Your task to perform on an android device: stop showing notifications on the lock screen Image 0: 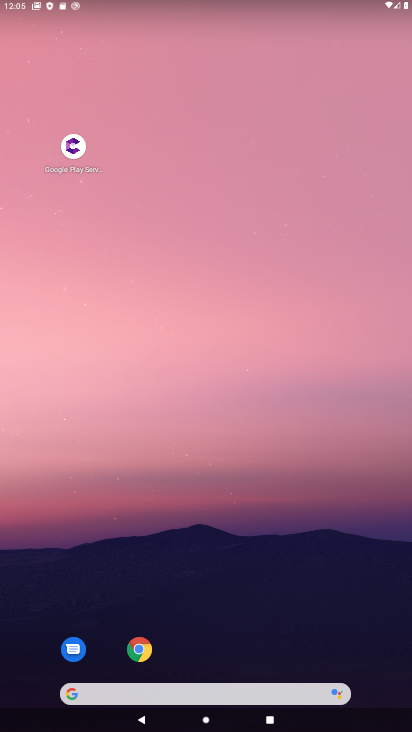
Step 0: drag from (386, 673) to (315, 174)
Your task to perform on an android device: stop showing notifications on the lock screen Image 1: 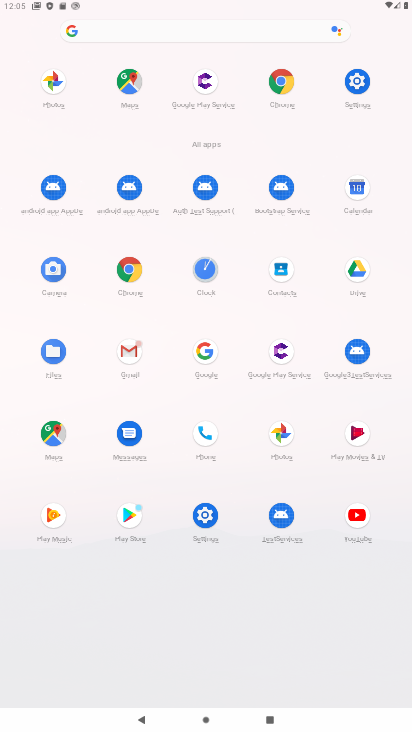
Step 1: click (204, 517)
Your task to perform on an android device: stop showing notifications on the lock screen Image 2: 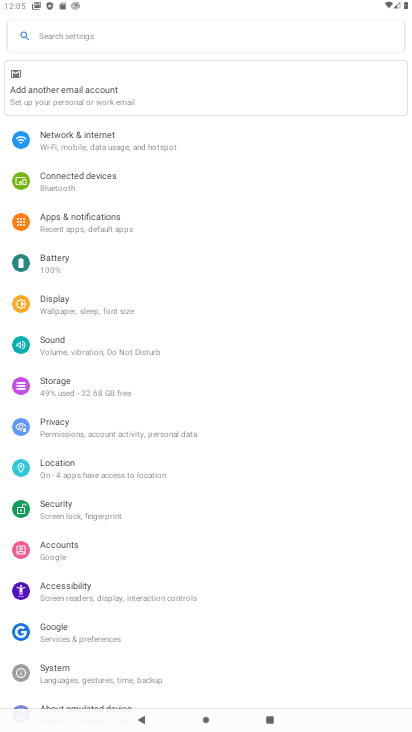
Step 2: click (75, 219)
Your task to perform on an android device: stop showing notifications on the lock screen Image 3: 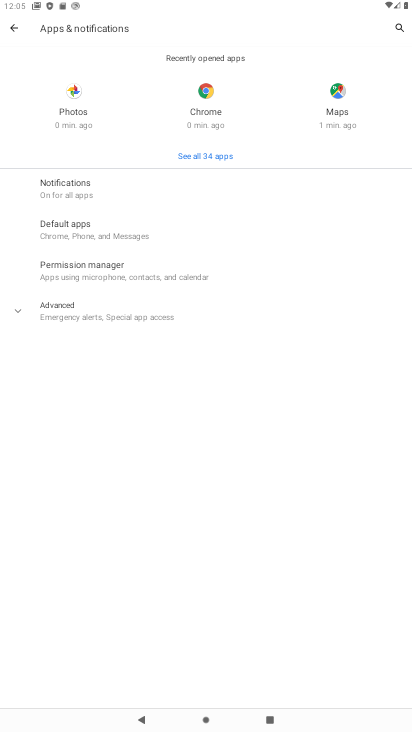
Step 3: click (70, 187)
Your task to perform on an android device: stop showing notifications on the lock screen Image 4: 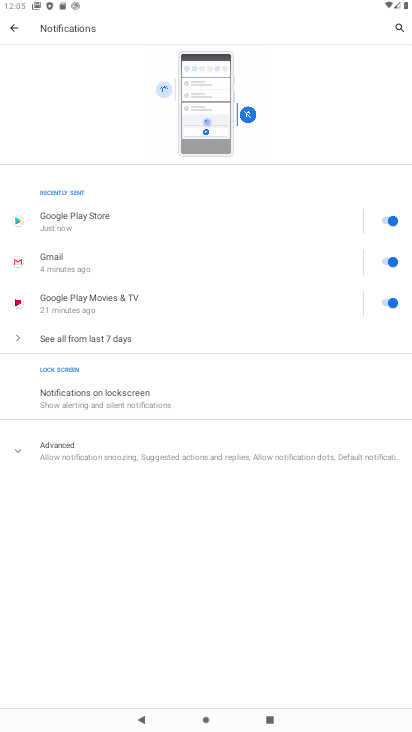
Step 4: click (80, 398)
Your task to perform on an android device: stop showing notifications on the lock screen Image 5: 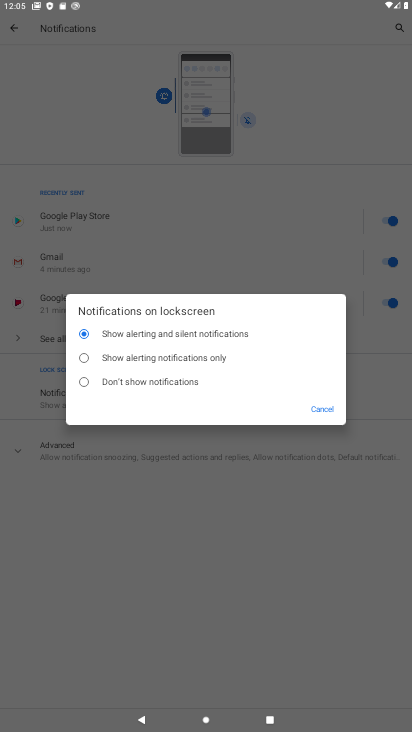
Step 5: click (88, 379)
Your task to perform on an android device: stop showing notifications on the lock screen Image 6: 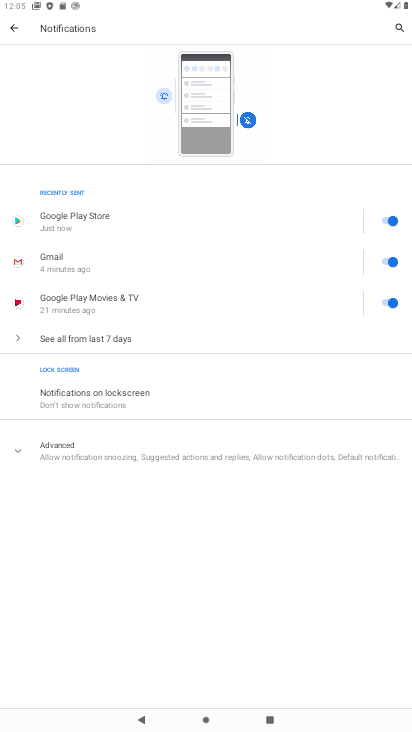
Step 6: task complete